Your task to perform on an android device: open a bookmark in the chrome app Image 0: 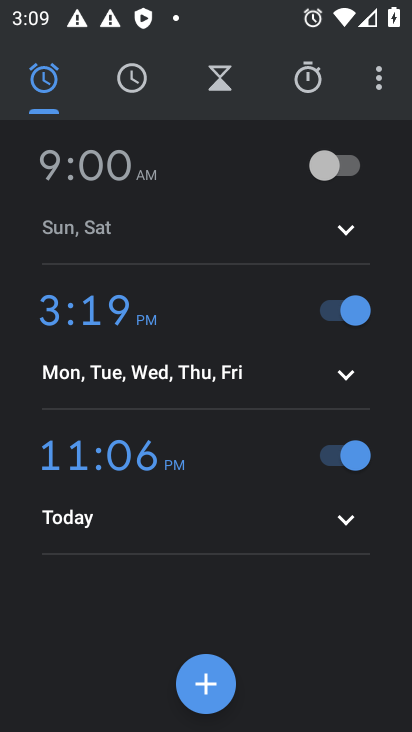
Step 0: press home button
Your task to perform on an android device: open a bookmark in the chrome app Image 1: 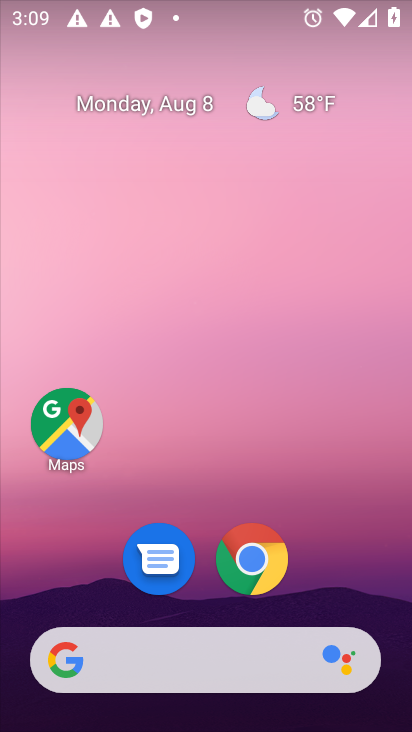
Step 1: click (247, 558)
Your task to perform on an android device: open a bookmark in the chrome app Image 2: 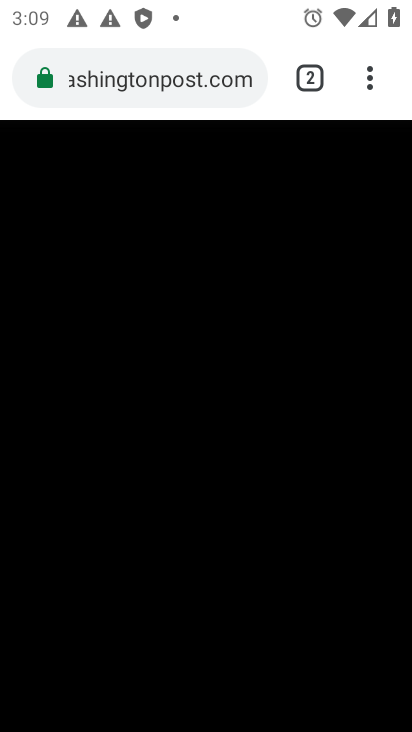
Step 2: click (370, 75)
Your task to perform on an android device: open a bookmark in the chrome app Image 3: 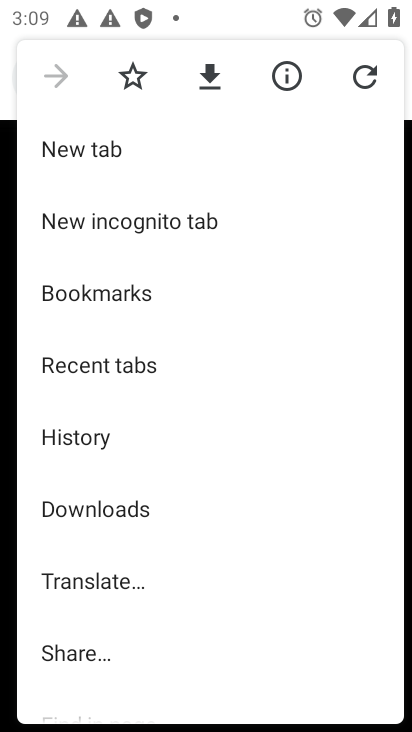
Step 3: click (127, 292)
Your task to perform on an android device: open a bookmark in the chrome app Image 4: 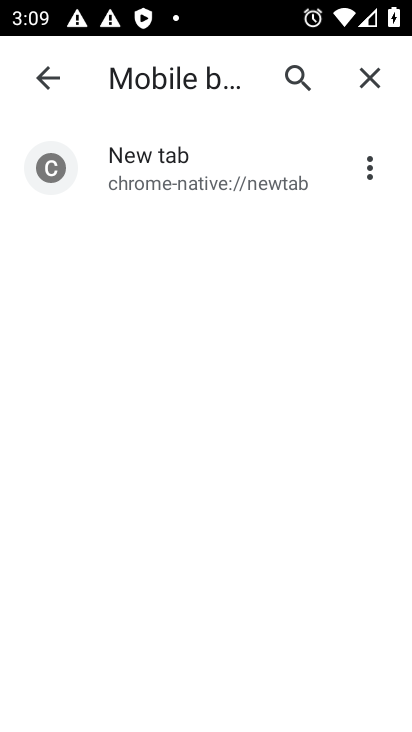
Step 4: task complete